Your task to perform on an android device: find photos in the google photos app Image 0: 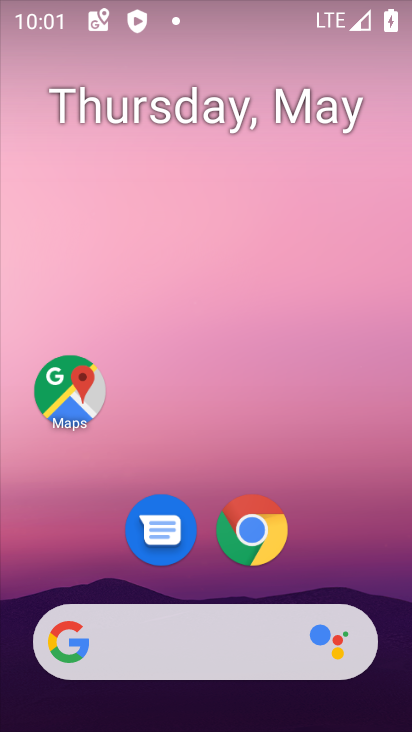
Step 0: drag from (190, 711) to (117, 175)
Your task to perform on an android device: find photos in the google photos app Image 1: 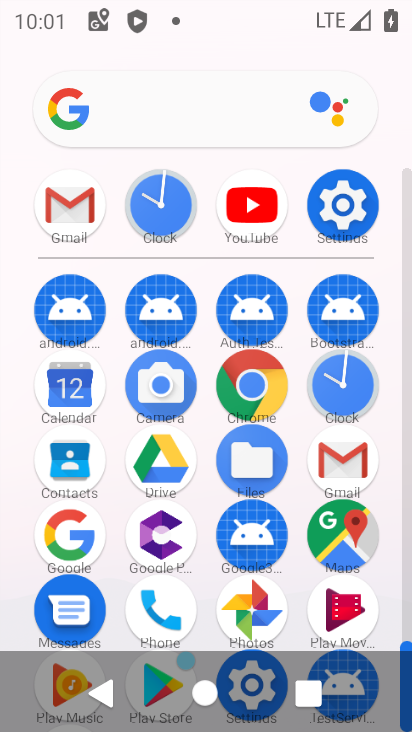
Step 1: click (252, 600)
Your task to perform on an android device: find photos in the google photos app Image 2: 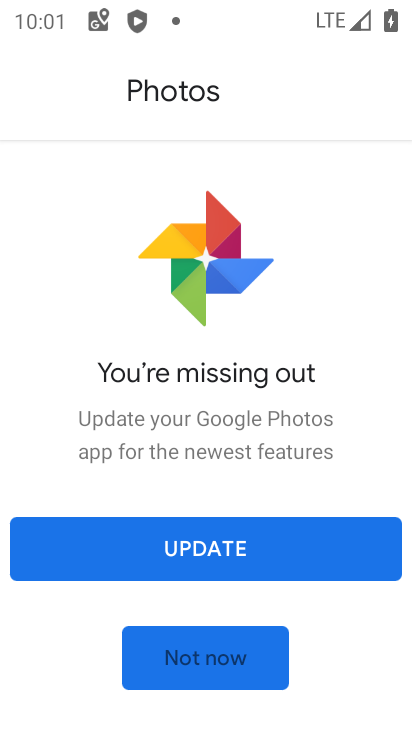
Step 2: click (237, 555)
Your task to perform on an android device: find photos in the google photos app Image 3: 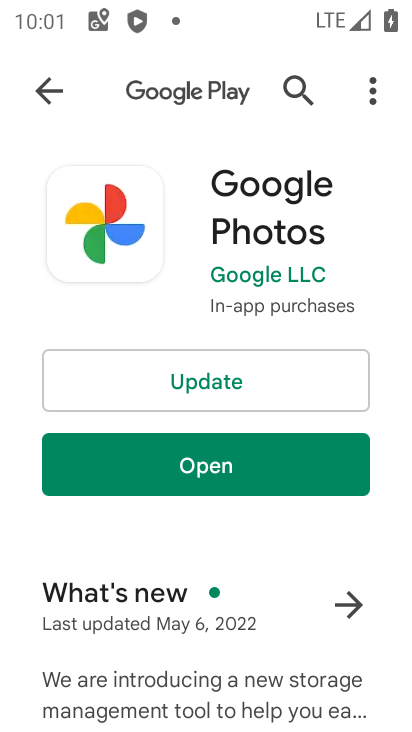
Step 3: click (290, 377)
Your task to perform on an android device: find photos in the google photos app Image 4: 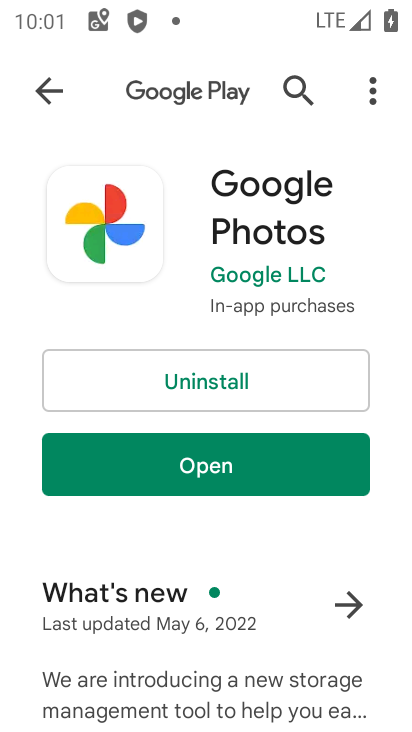
Step 4: click (249, 466)
Your task to perform on an android device: find photos in the google photos app Image 5: 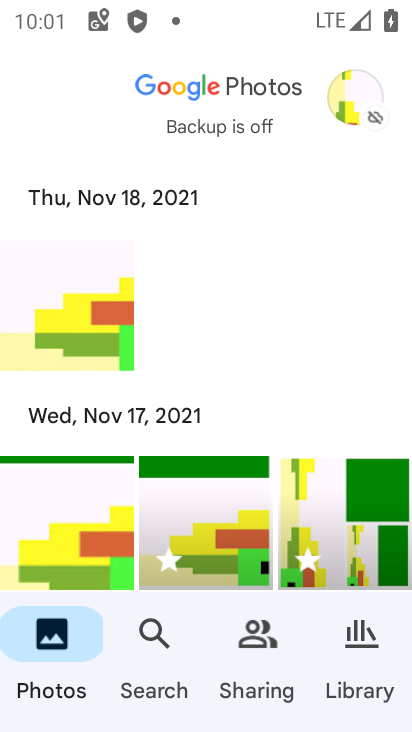
Step 5: click (151, 635)
Your task to perform on an android device: find photos in the google photos app Image 6: 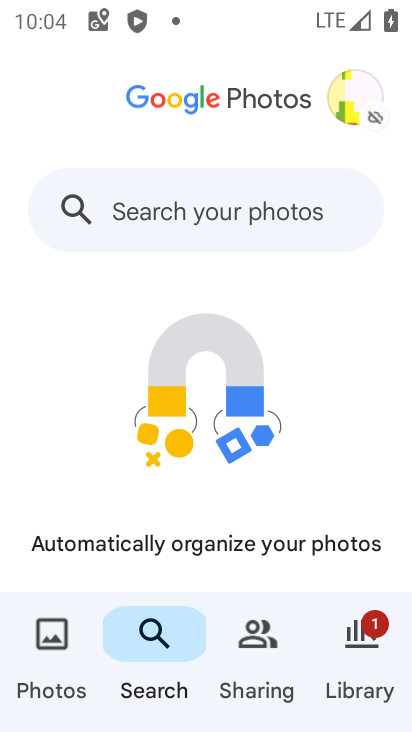
Step 6: click (59, 646)
Your task to perform on an android device: find photos in the google photos app Image 7: 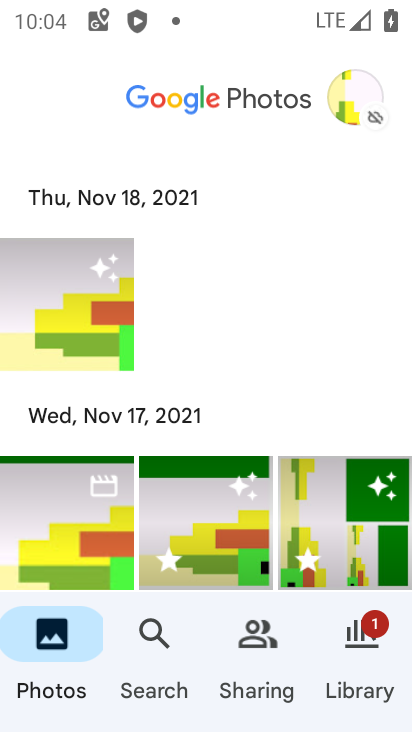
Step 7: task complete